Your task to perform on an android device: Open Google Chrome and open the bookmarks view Image 0: 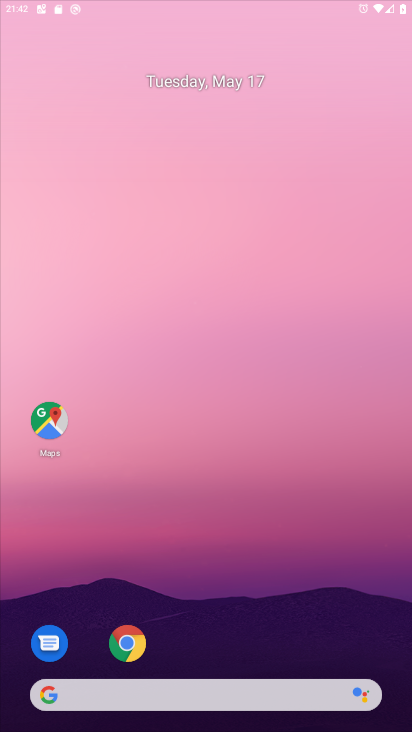
Step 0: press home button
Your task to perform on an android device: Open Google Chrome and open the bookmarks view Image 1: 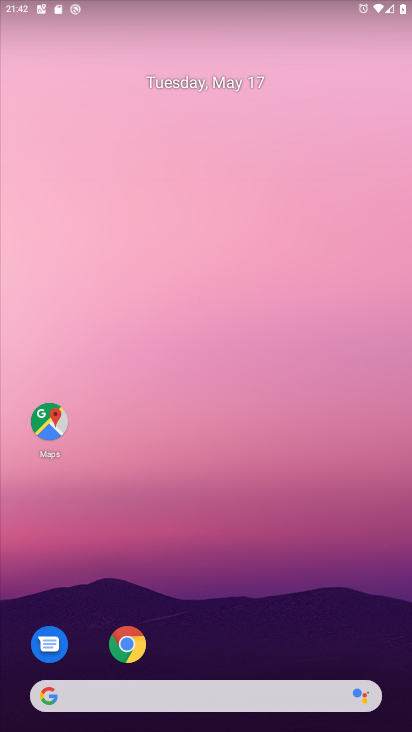
Step 1: click (122, 638)
Your task to perform on an android device: Open Google Chrome and open the bookmarks view Image 2: 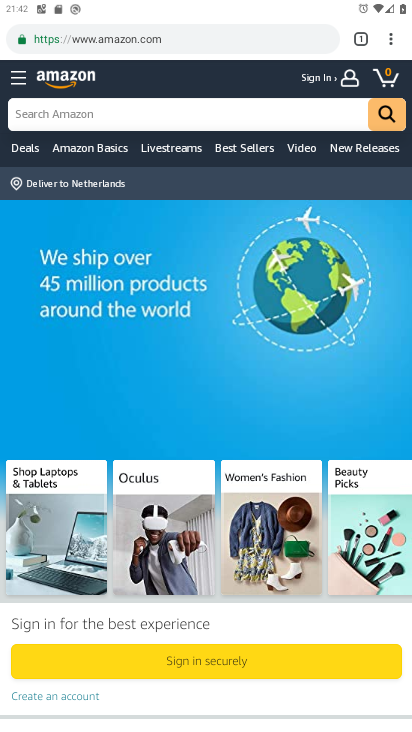
Step 2: click (397, 34)
Your task to perform on an android device: Open Google Chrome and open the bookmarks view Image 3: 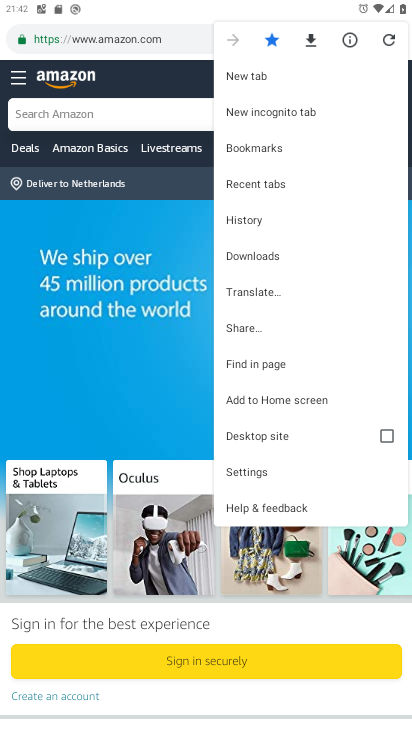
Step 3: click (286, 141)
Your task to perform on an android device: Open Google Chrome and open the bookmarks view Image 4: 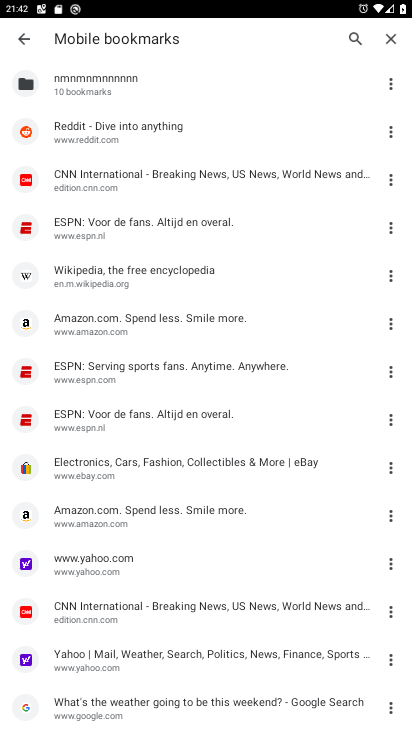
Step 4: task complete